Your task to perform on an android device: change the clock display to show seconds Image 0: 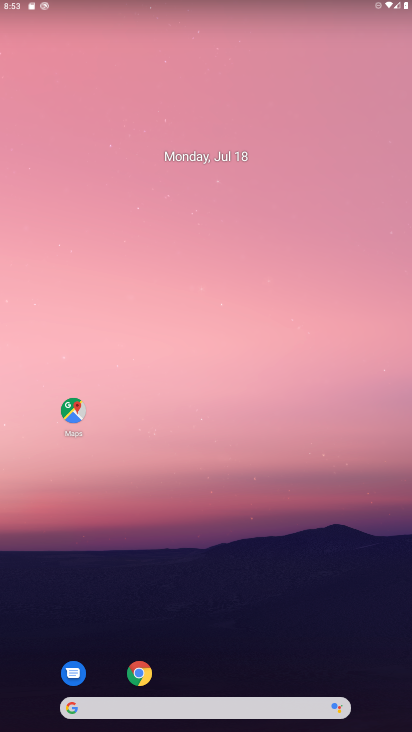
Step 0: press home button
Your task to perform on an android device: change the clock display to show seconds Image 1: 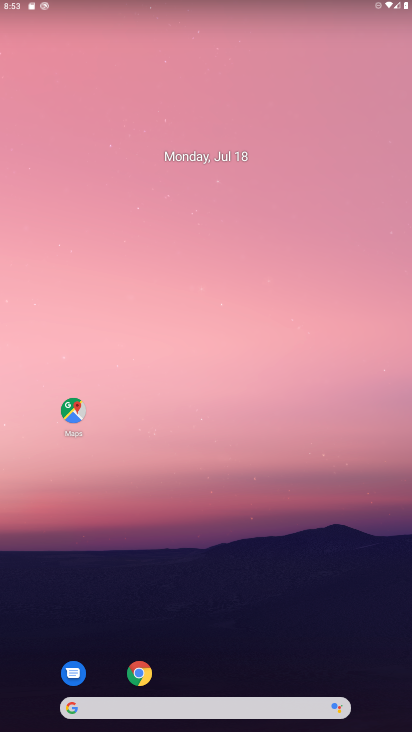
Step 1: drag from (253, 675) to (275, 138)
Your task to perform on an android device: change the clock display to show seconds Image 2: 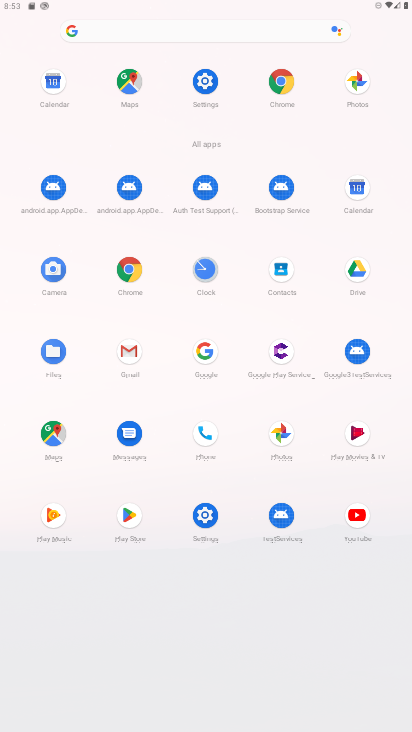
Step 2: click (208, 267)
Your task to perform on an android device: change the clock display to show seconds Image 3: 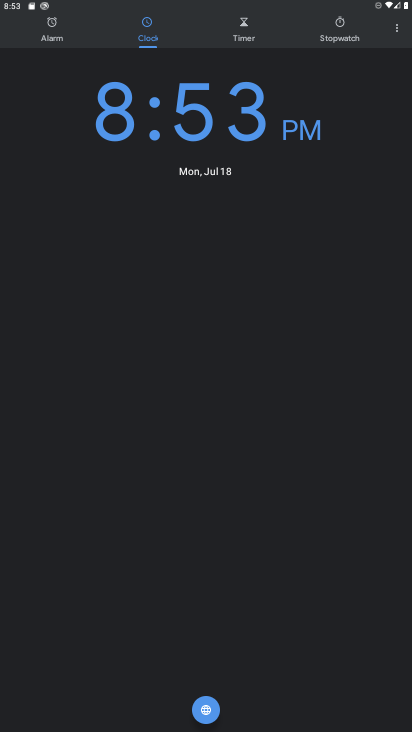
Step 3: click (400, 29)
Your task to perform on an android device: change the clock display to show seconds Image 4: 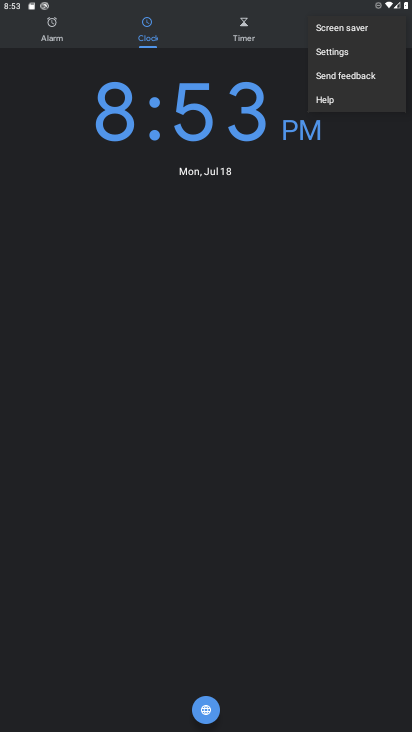
Step 4: click (343, 59)
Your task to perform on an android device: change the clock display to show seconds Image 5: 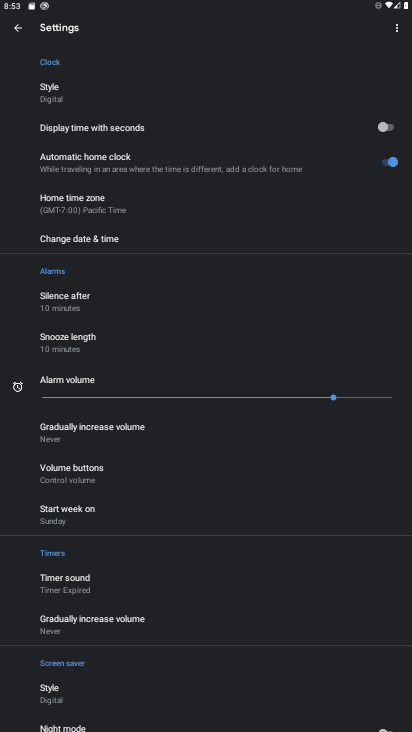
Step 5: click (384, 130)
Your task to perform on an android device: change the clock display to show seconds Image 6: 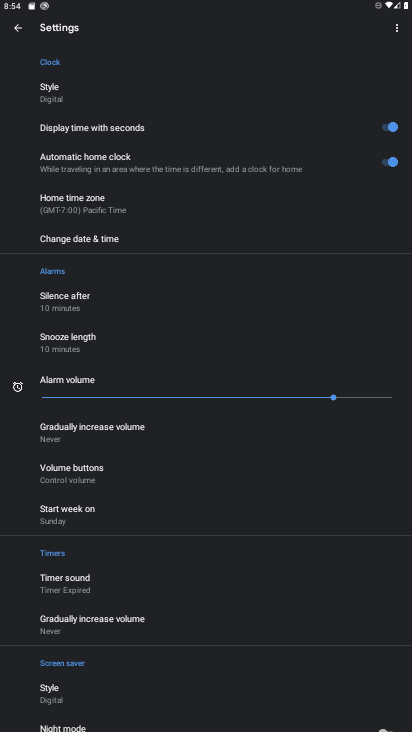
Step 6: task complete